Your task to perform on an android device: turn off sleep mode Image 0: 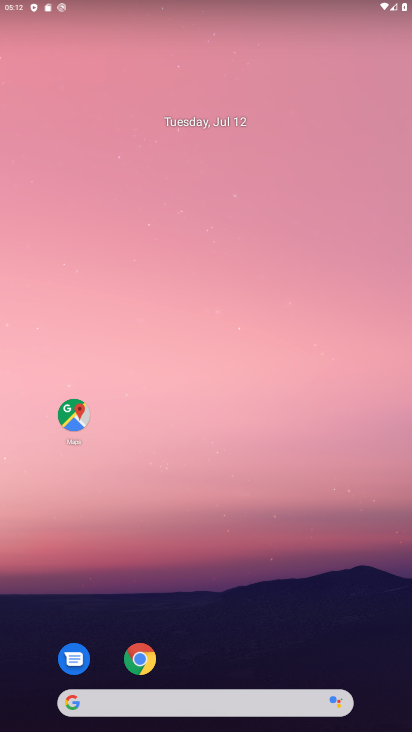
Step 0: drag from (381, 685) to (310, 281)
Your task to perform on an android device: turn off sleep mode Image 1: 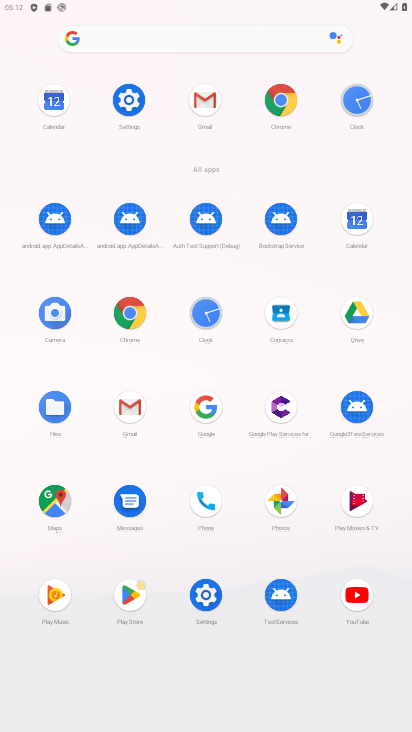
Step 1: click (206, 596)
Your task to perform on an android device: turn off sleep mode Image 2: 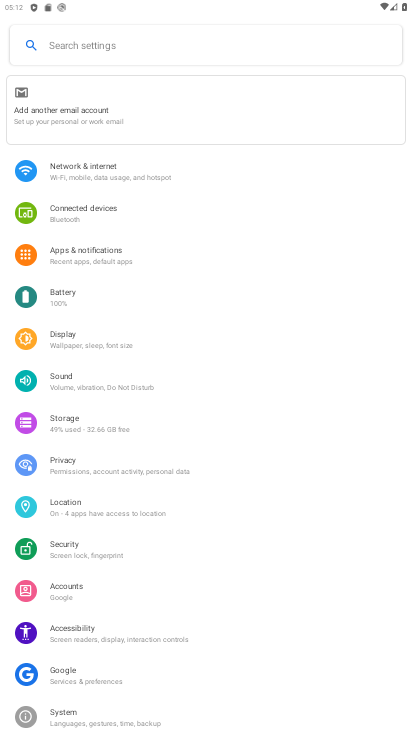
Step 2: click (61, 340)
Your task to perform on an android device: turn off sleep mode Image 3: 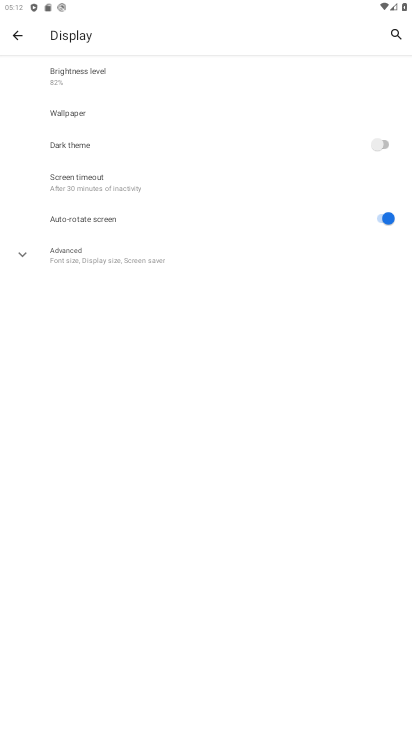
Step 3: click (21, 253)
Your task to perform on an android device: turn off sleep mode Image 4: 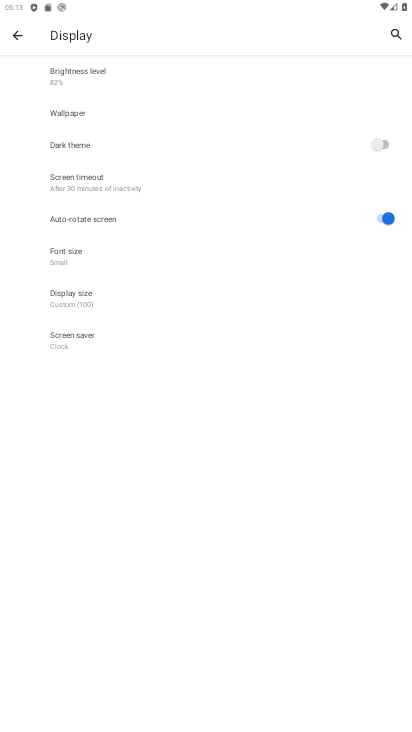
Step 4: task complete